Your task to perform on an android device: turn on data saver in the chrome app Image 0: 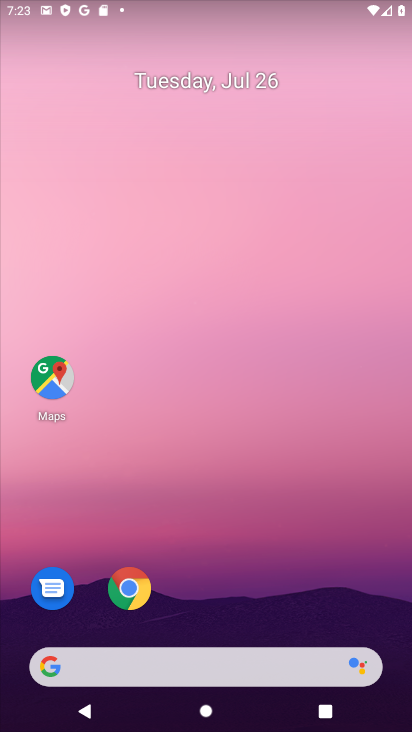
Step 0: drag from (182, 532) to (184, 37)
Your task to perform on an android device: turn on data saver in the chrome app Image 1: 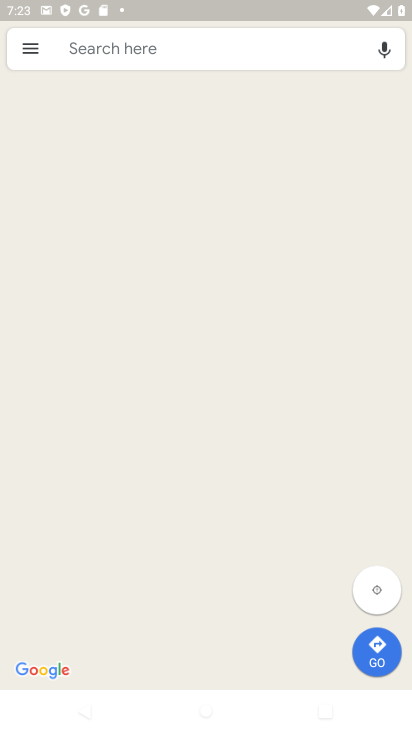
Step 1: press home button
Your task to perform on an android device: turn on data saver in the chrome app Image 2: 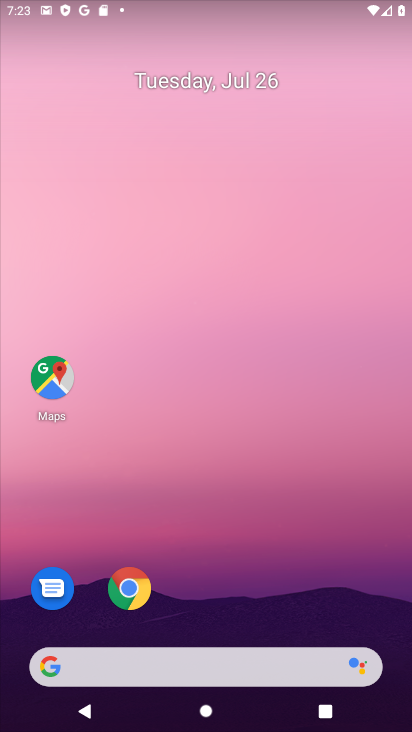
Step 2: drag from (244, 664) to (257, 226)
Your task to perform on an android device: turn on data saver in the chrome app Image 3: 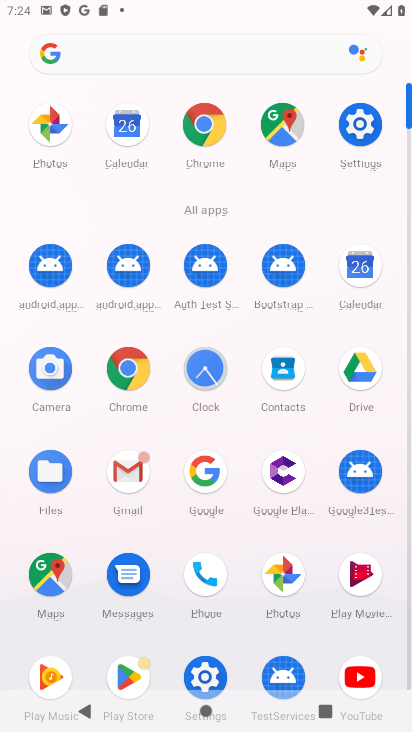
Step 3: click (204, 138)
Your task to perform on an android device: turn on data saver in the chrome app Image 4: 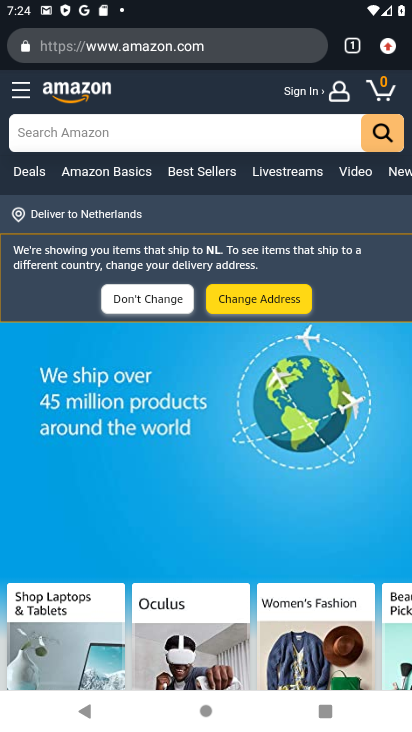
Step 4: click (393, 55)
Your task to perform on an android device: turn on data saver in the chrome app Image 5: 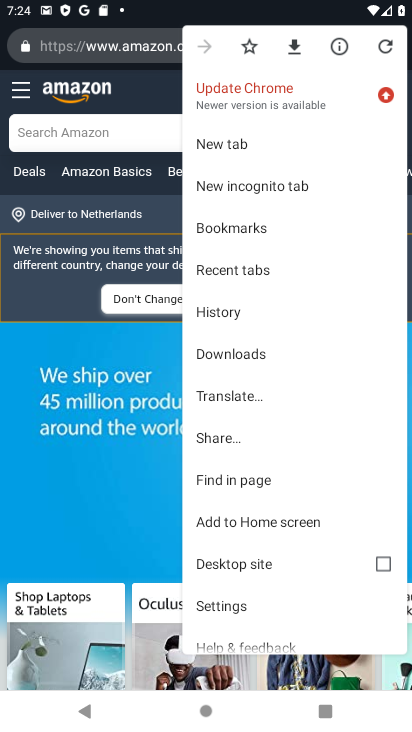
Step 5: click (238, 604)
Your task to perform on an android device: turn on data saver in the chrome app Image 6: 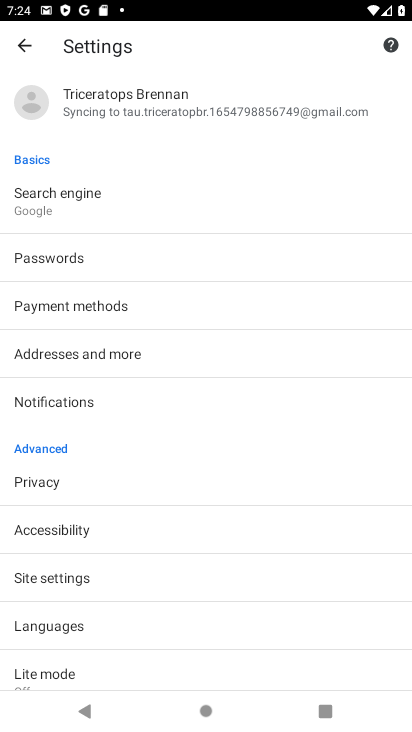
Step 6: drag from (142, 570) to (172, 362)
Your task to perform on an android device: turn on data saver in the chrome app Image 7: 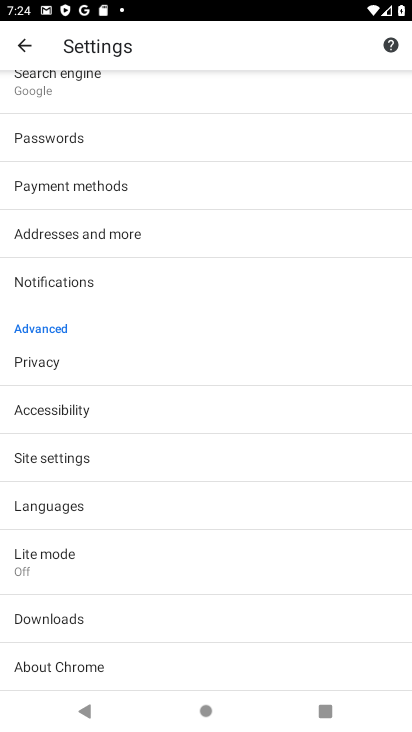
Step 7: click (78, 560)
Your task to perform on an android device: turn on data saver in the chrome app Image 8: 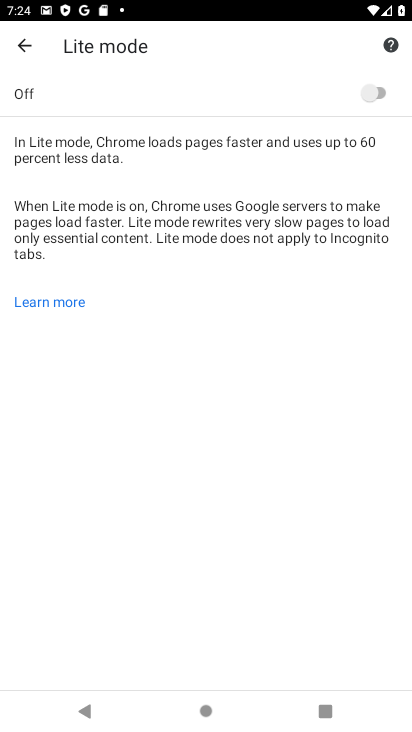
Step 8: click (377, 101)
Your task to perform on an android device: turn on data saver in the chrome app Image 9: 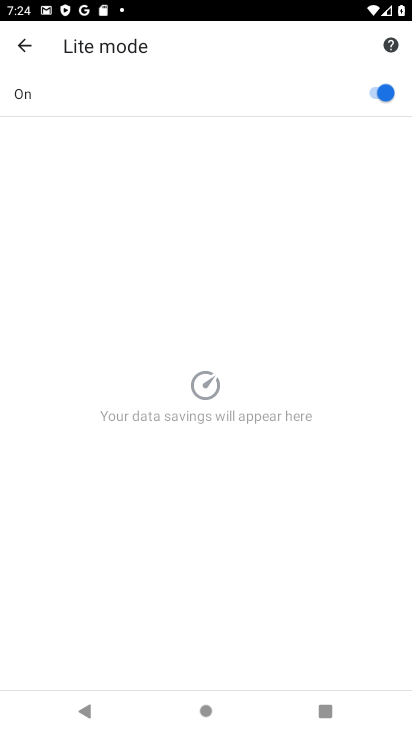
Step 9: task complete